Your task to perform on an android device: Show me popular games on the Play Store Image 0: 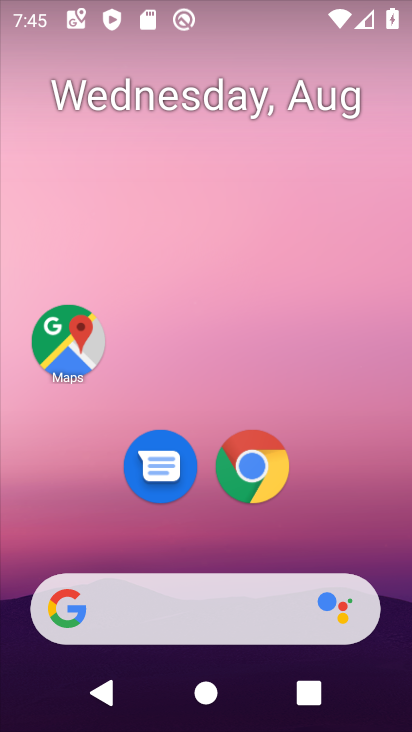
Step 0: drag from (357, 514) to (371, 92)
Your task to perform on an android device: Show me popular games on the Play Store Image 1: 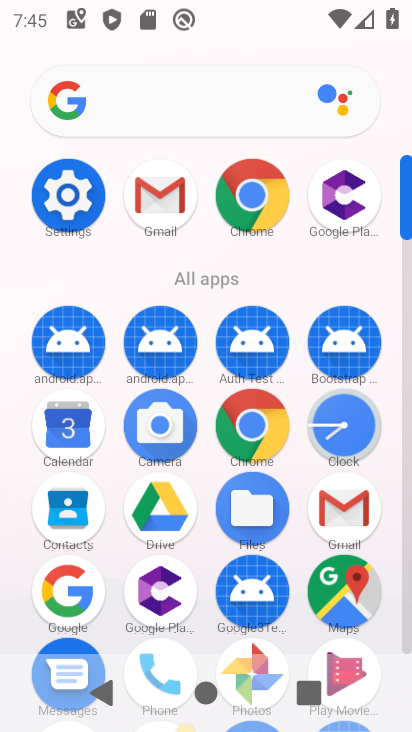
Step 1: drag from (296, 565) to (293, 230)
Your task to perform on an android device: Show me popular games on the Play Store Image 2: 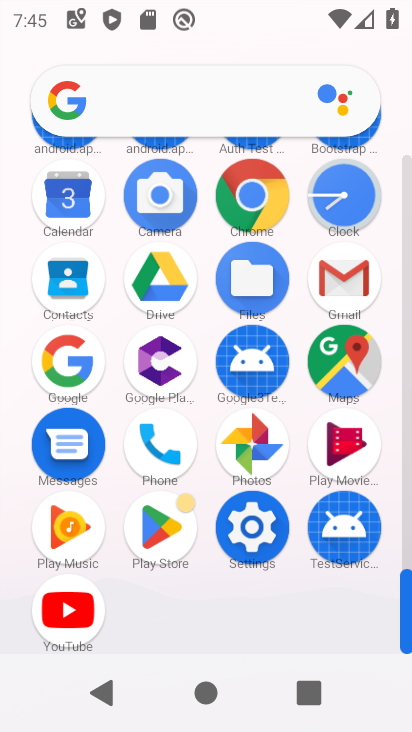
Step 2: click (153, 531)
Your task to perform on an android device: Show me popular games on the Play Store Image 3: 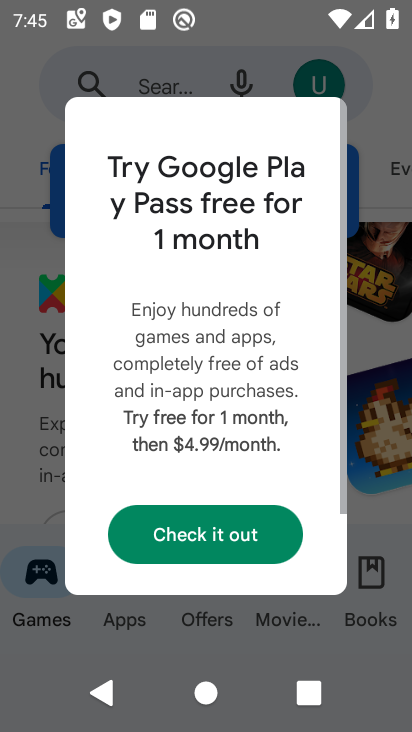
Step 3: click (245, 527)
Your task to perform on an android device: Show me popular games on the Play Store Image 4: 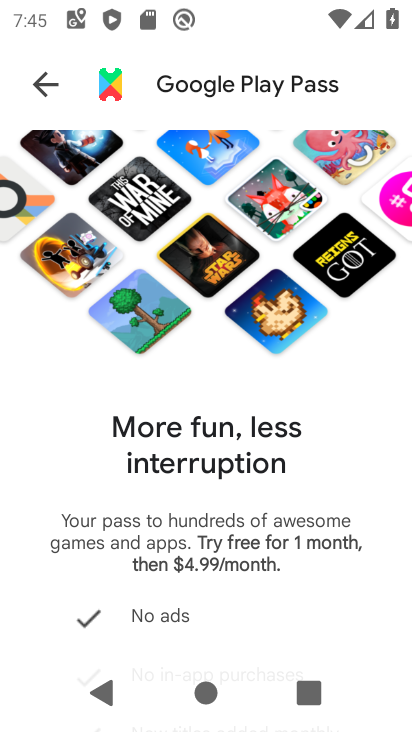
Step 4: click (55, 76)
Your task to perform on an android device: Show me popular games on the Play Store Image 5: 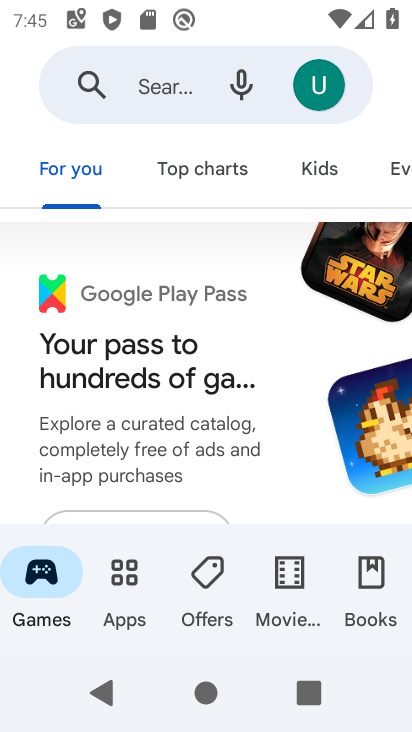
Step 5: drag from (224, 428) to (284, 97)
Your task to perform on an android device: Show me popular games on the Play Store Image 6: 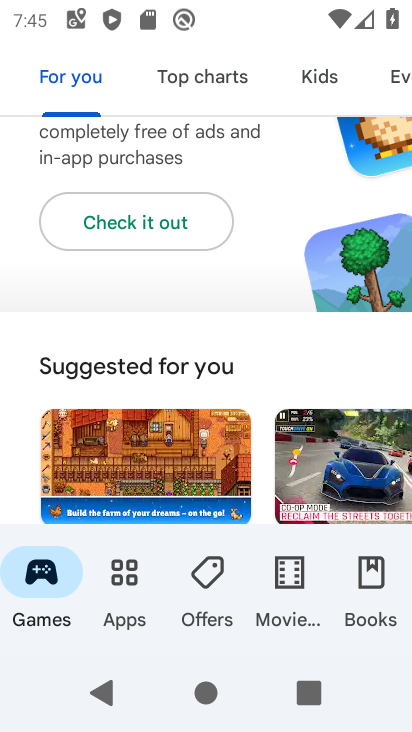
Step 6: drag from (262, 404) to (320, 174)
Your task to perform on an android device: Show me popular games on the Play Store Image 7: 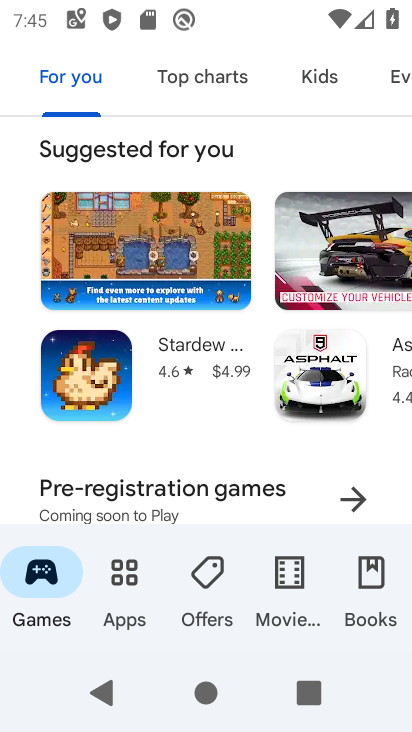
Step 7: drag from (304, 458) to (351, 195)
Your task to perform on an android device: Show me popular games on the Play Store Image 8: 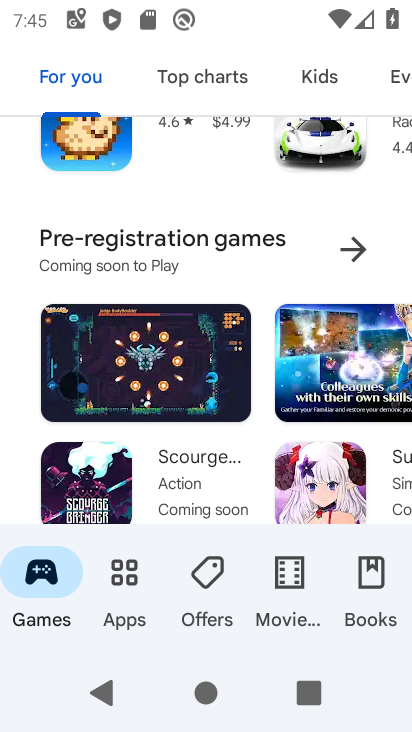
Step 8: drag from (257, 440) to (300, 182)
Your task to perform on an android device: Show me popular games on the Play Store Image 9: 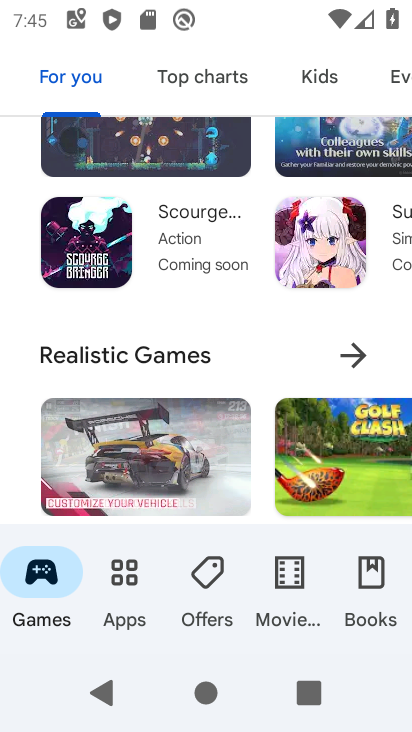
Step 9: drag from (264, 501) to (288, 207)
Your task to perform on an android device: Show me popular games on the Play Store Image 10: 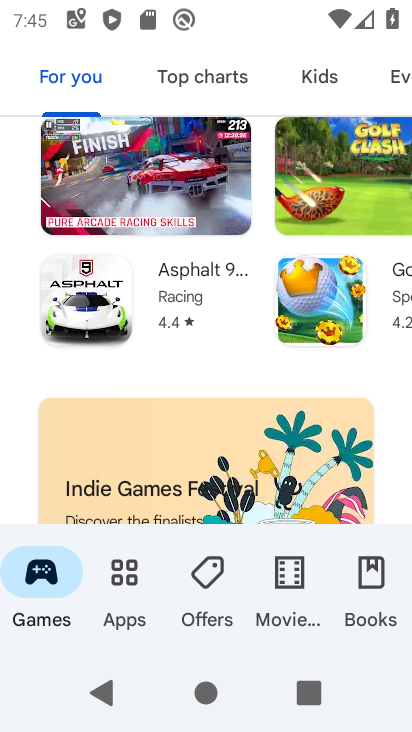
Step 10: drag from (226, 396) to (258, 210)
Your task to perform on an android device: Show me popular games on the Play Store Image 11: 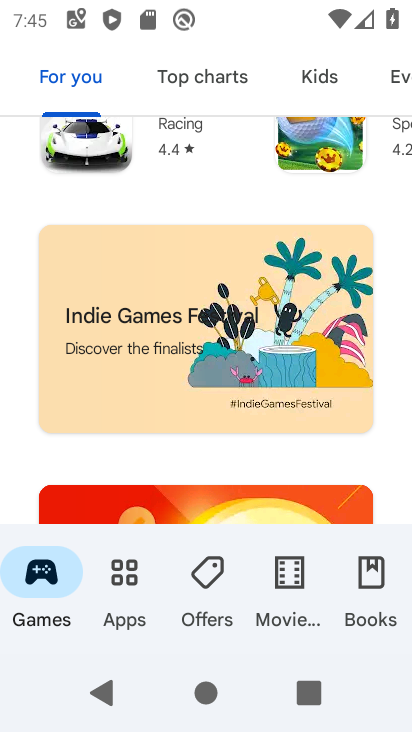
Step 11: drag from (241, 470) to (293, 235)
Your task to perform on an android device: Show me popular games on the Play Store Image 12: 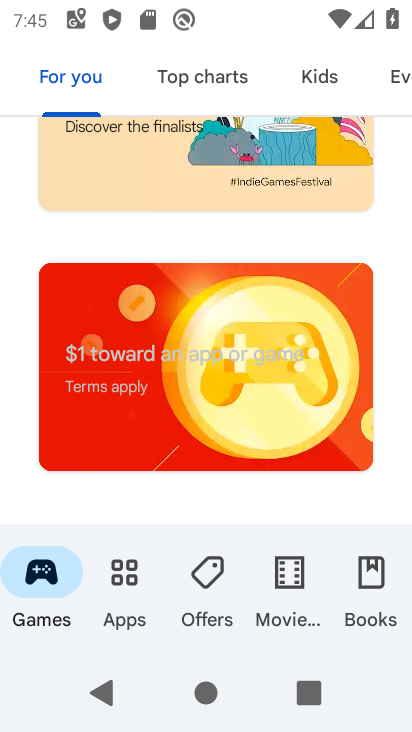
Step 12: drag from (232, 488) to (314, 228)
Your task to perform on an android device: Show me popular games on the Play Store Image 13: 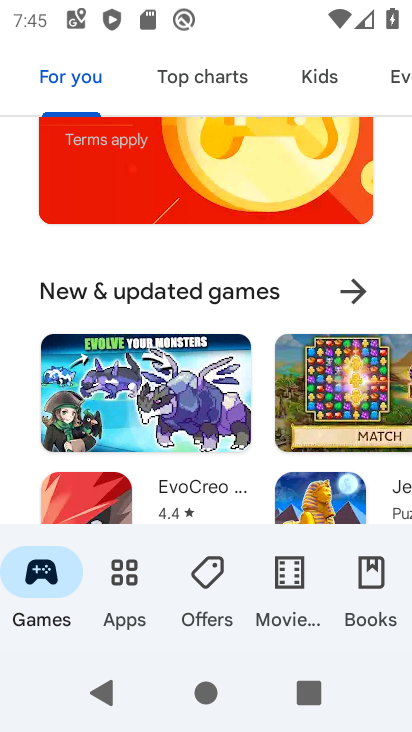
Step 13: drag from (261, 487) to (296, 206)
Your task to perform on an android device: Show me popular games on the Play Store Image 14: 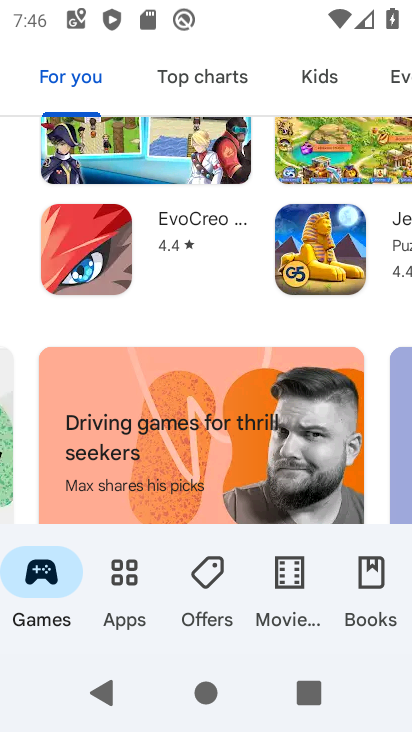
Step 14: drag from (375, 519) to (387, 261)
Your task to perform on an android device: Show me popular games on the Play Store Image 15: 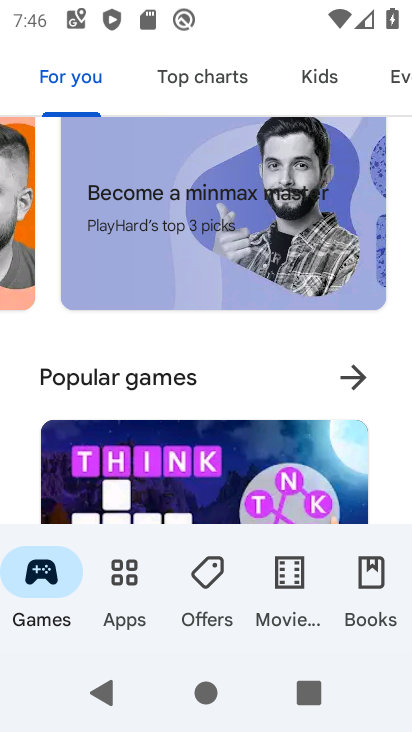
Step 15: drag from (298, 422) to (325, 262)
Your task to perform on an android device: Show me popular games on the Play Store Image 16: 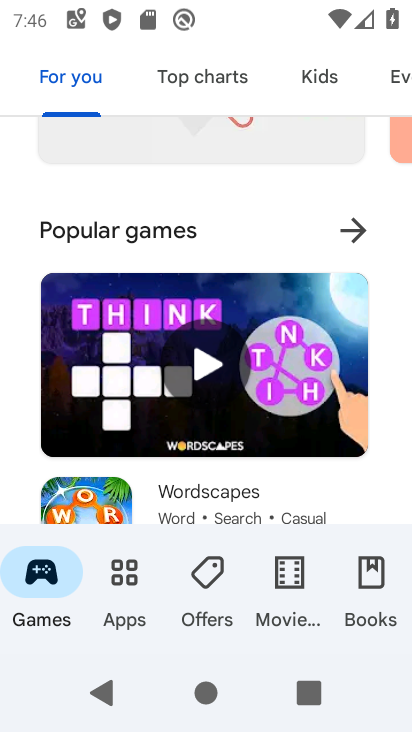
Step 16: drag from (284, 489) to (325, 313)
Your task to perform on an android device: Show me popular games on the Play Store Image 17: 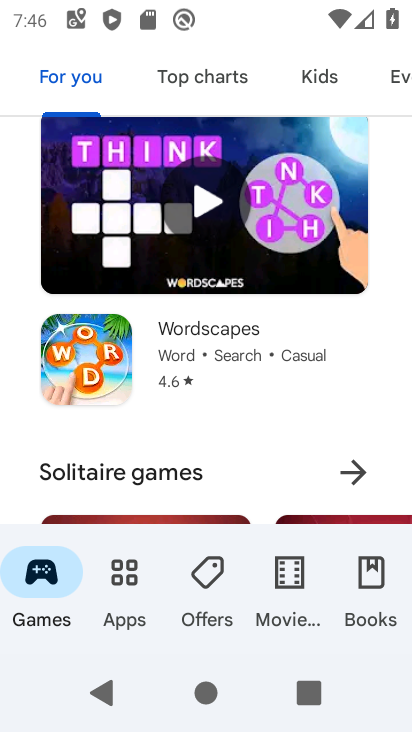
Step 17: drag from (273, 504) to (326, 156)
Your task to perform on an android device: Show me popular games on the Play Store Image 18: 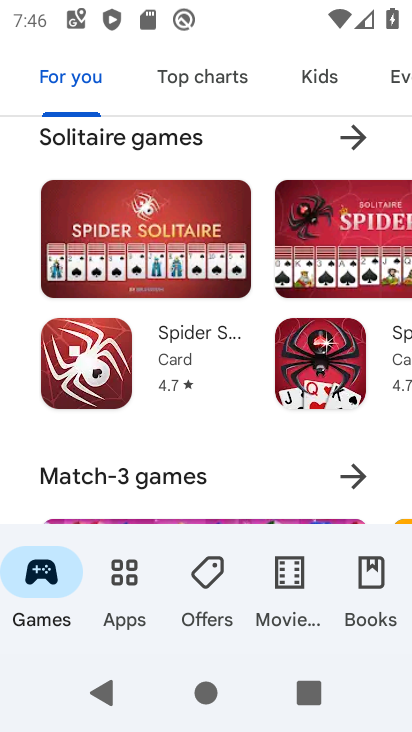
Step 18: drag from (255, 458) to (287, 146)
Your task to perform on an android device: Show me popular games on the Play Store Image 19: 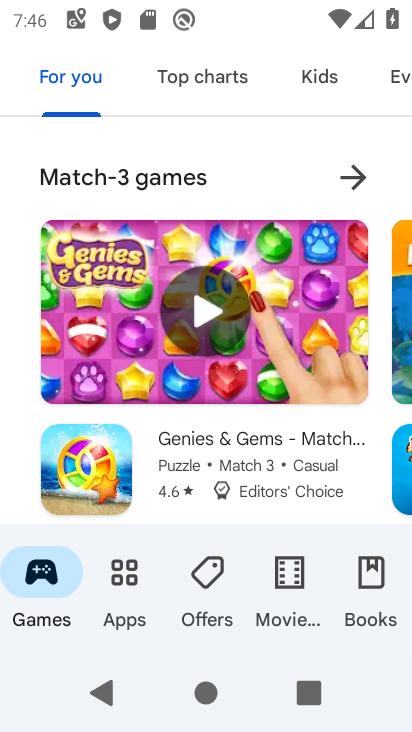
Step 19: drag from (373, 427) to (396, 188)
Your task to perform on an android device: Show me popular games on the Play Store Image 20: 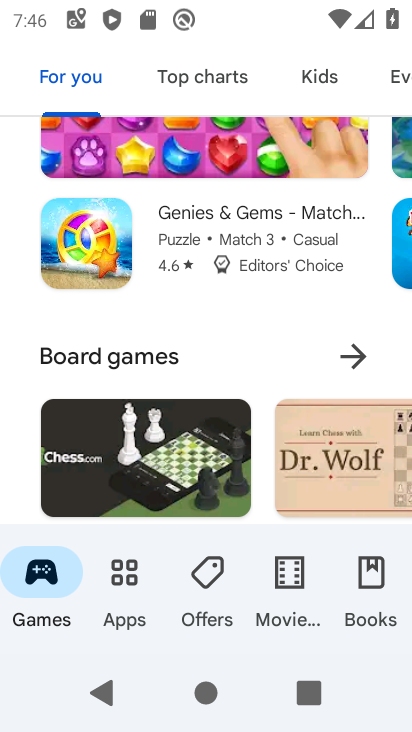
Step 20: drag from (256, 512) to (341, 257)
Your task to perform on an android device: Show me popular games on the Play Store Image 21: 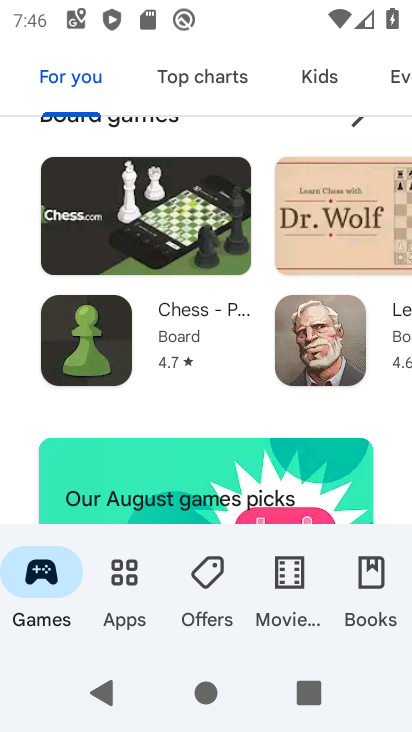
Step 21: drag from (393, 504) to (404, 293)
Your task to perform on an android device: Show me popular games on the Play Store Image 22: 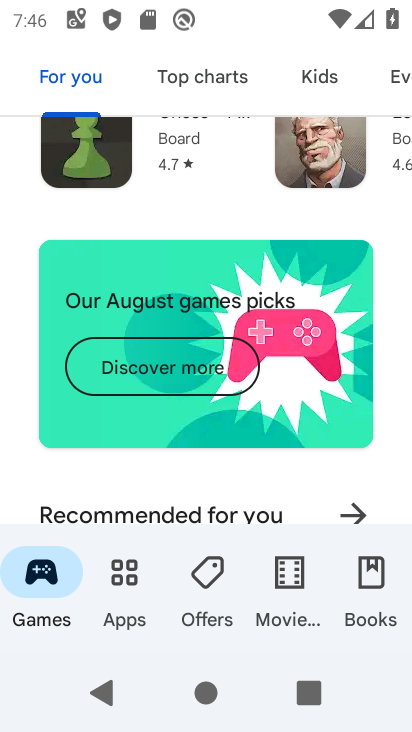
Step 22: drag from (281, 478) to (389, 281)
Your task to perform on an android device: Show me popular games on the Play Store Image 23: 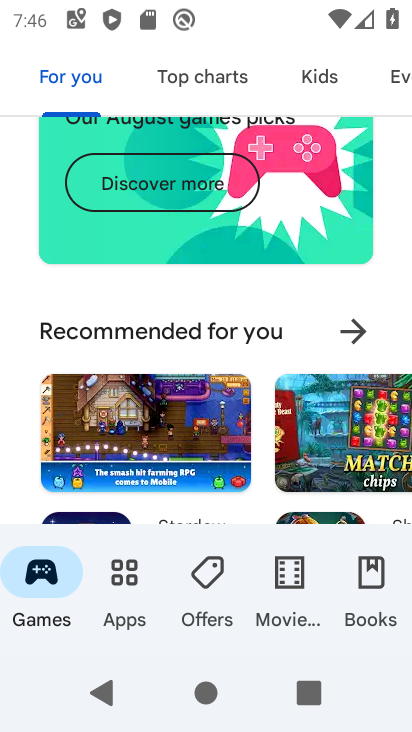
Step 23: drag from (256, 492) to (297, 356)
Your task to perform on an android device: Show me popular games on the Play Store Image 24: 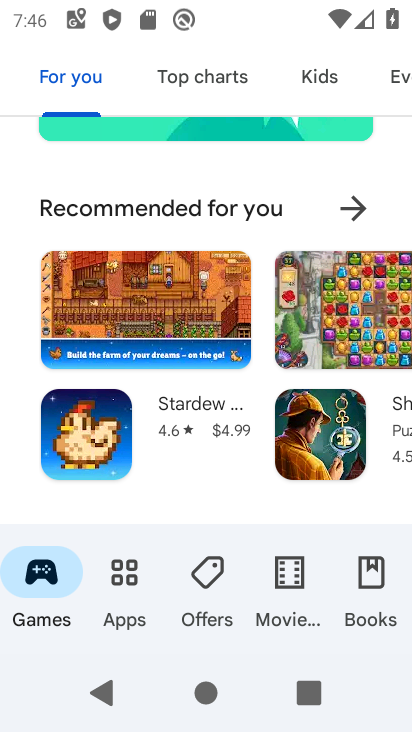
Step 24: drag from (273, 510) to (364, 258)
Your task to perform on an android device: Show me popular games on the Play Store Image 25: 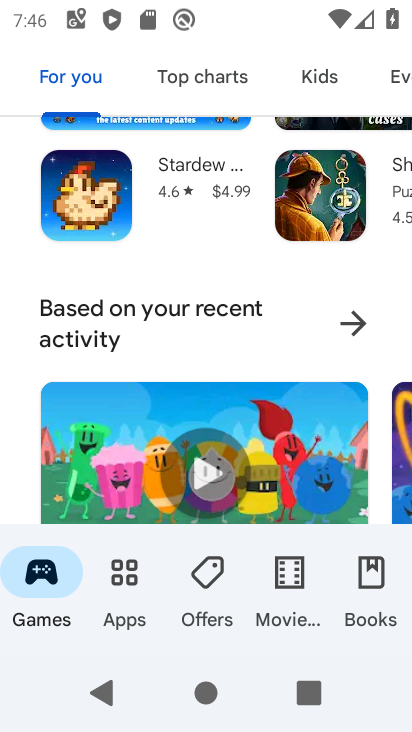
Step 25: drag from (377, 526) to (411, 311)
Your task to perform on an android device: Show me popular games on the Play Store Image 26: 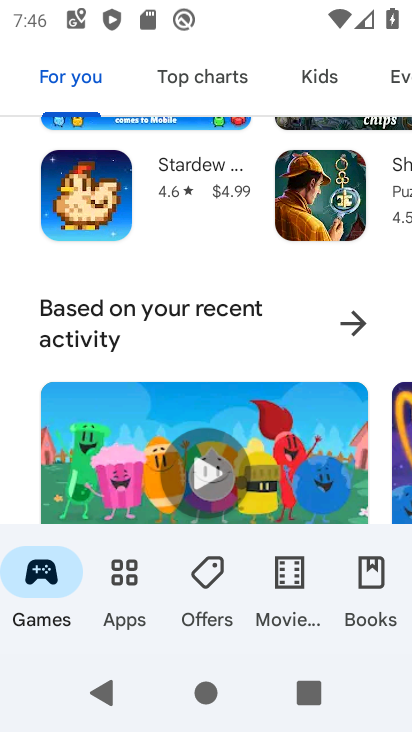
Step 26: drag from (277, 327) to (351, 183)
Your task to perform on an android device: Show me popular games on the Play Store Image 27: 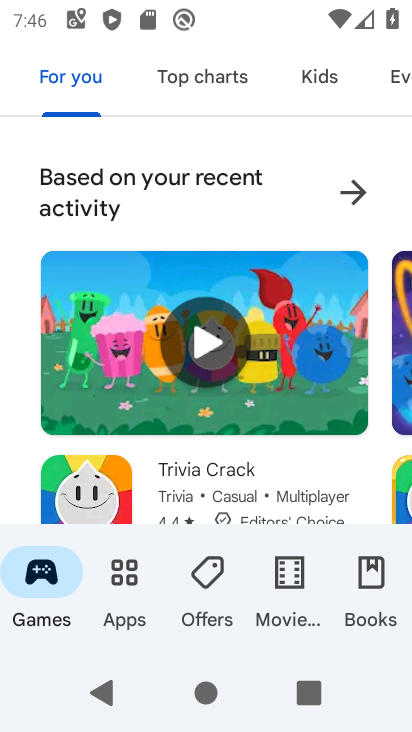
Step 27: drag from (280, 469) to (335, 309)
Your task to perform on an android device: Show me popular games on the Play Store Image 28: 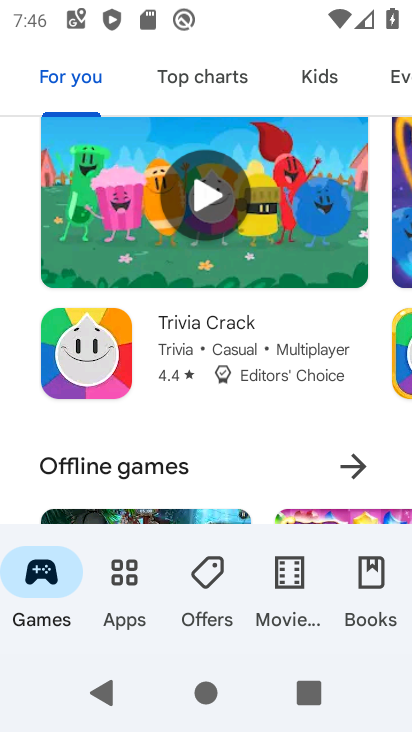
Step 28: drag from (282, 485) to (330, 215)
Your task to perform on an android device: Show me popular games on the Play Store Image 29: 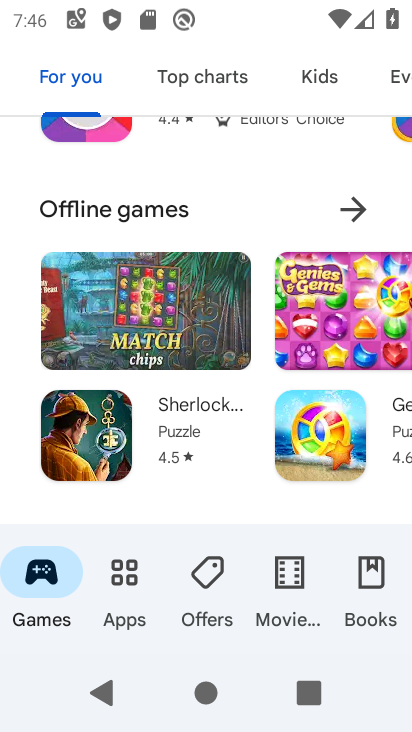
Step 29: drag from (259, 476) to (402, 159)
Your task to perform on an android device: Show me popular games on the Play Store Image 30: 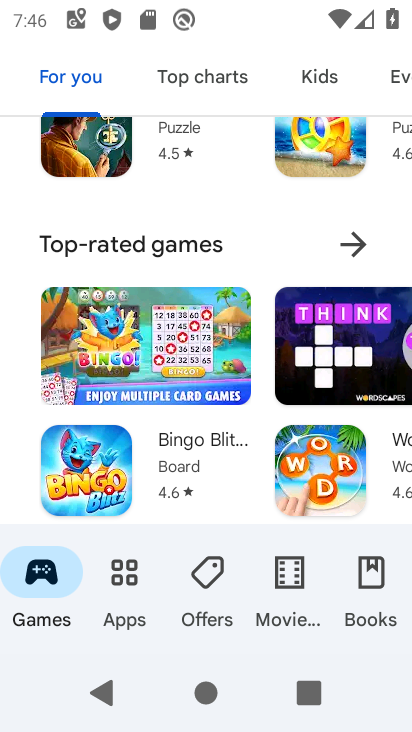
Step 30: drag from (258, 479) to (329, 229)
Your task to perform on an android device: Show me popular games on the Play Store Image 31: 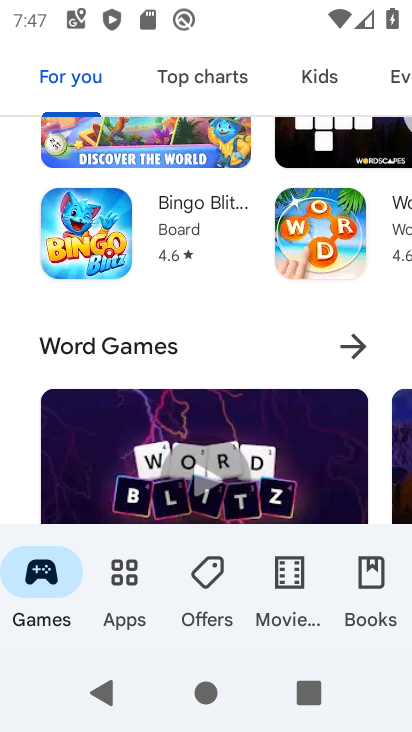
Step 31: drag from (369, 492) to (389, 301)
Your task to perform on an android device: Show me popular games on the Play Store Image 32: 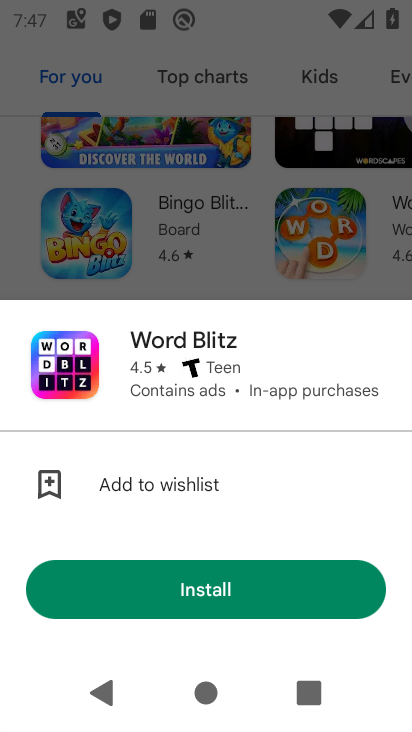
Step 32: click (277, 224)
Your task to perform on an android device: Show me popular games on the Play Store Image 33: 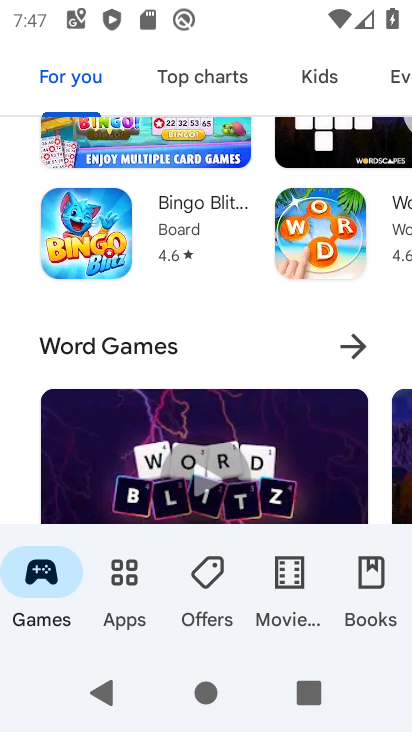
Step 33: task complete